Your task to perform on an android device: Open Amazon Image 0: 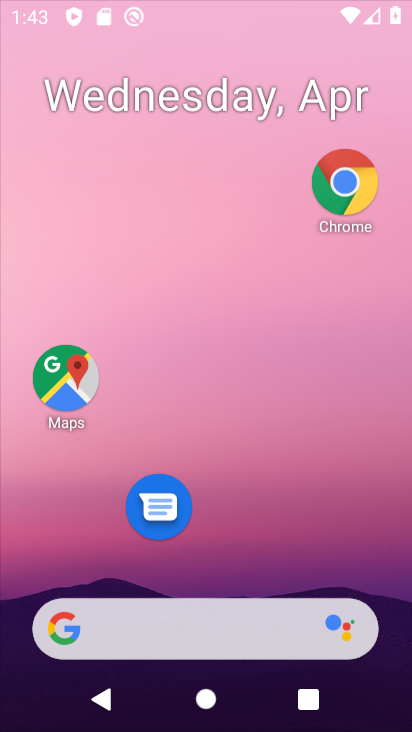
Step 0: click (156, 0)
Your task to perform on an android device: Open Amazon Image 1: 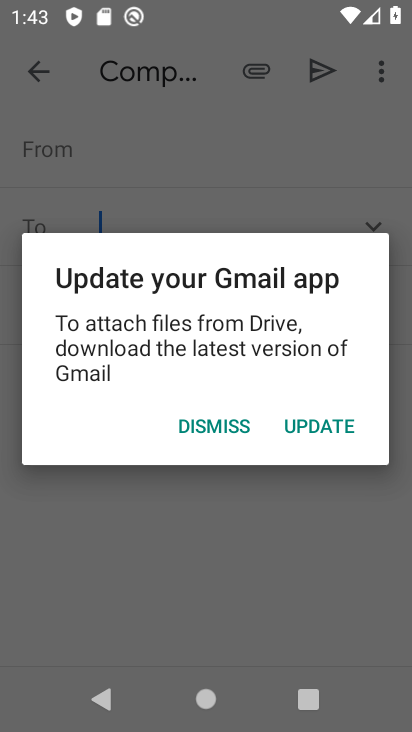
Step 1: press home button
Your task to perform on an android device: Open Amazon Image 2: 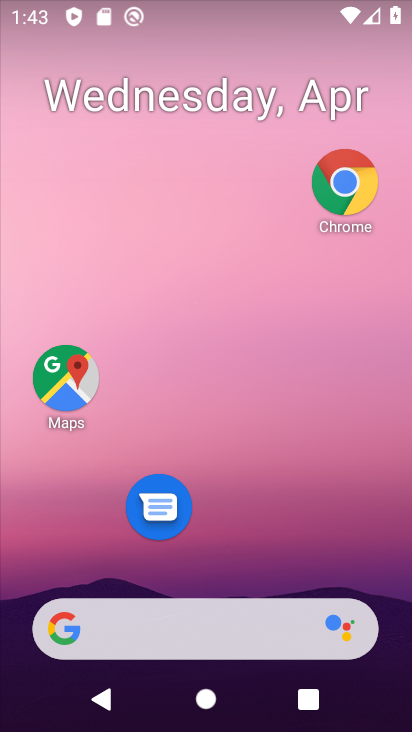
Step 2: click (199, 640)
Your task to perform on an android device: Open Amazon Image 3: 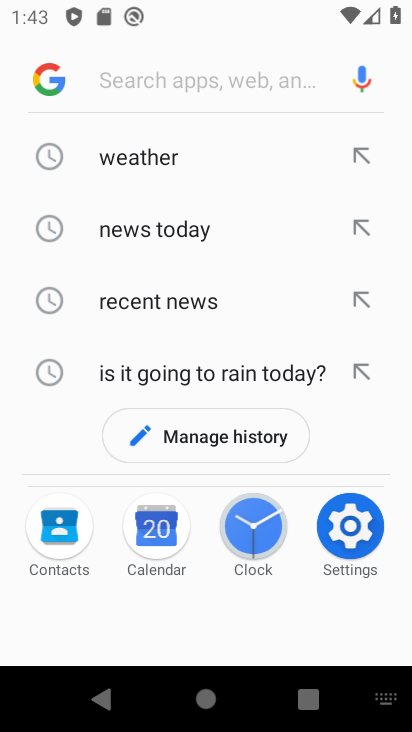
Step 3: type "amazon.com"
Your task to perform on an android device: Open Amazon Image 4: 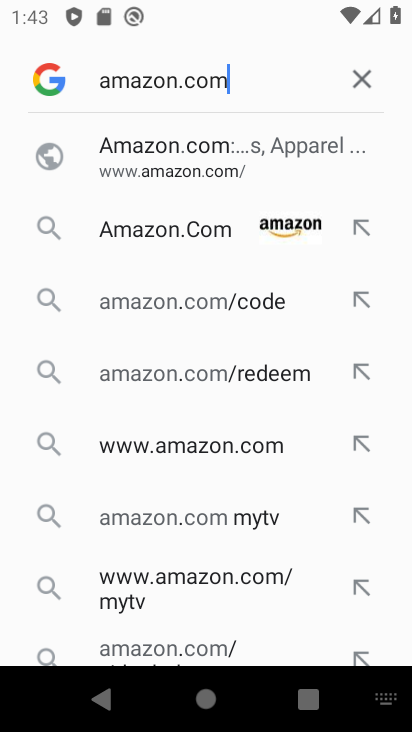
Step 4: click (194, 153)
Your task to perform on an android device: Open Amazon Image 5: 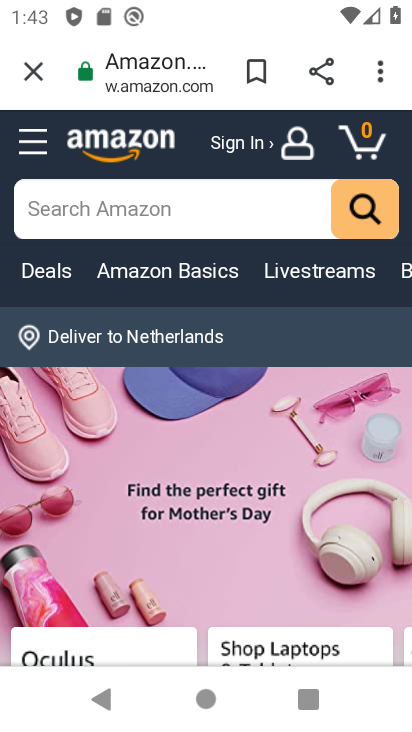
Step 5: task complete